Your task to perform on an android device: Open Chrome and go to settings Image 0: 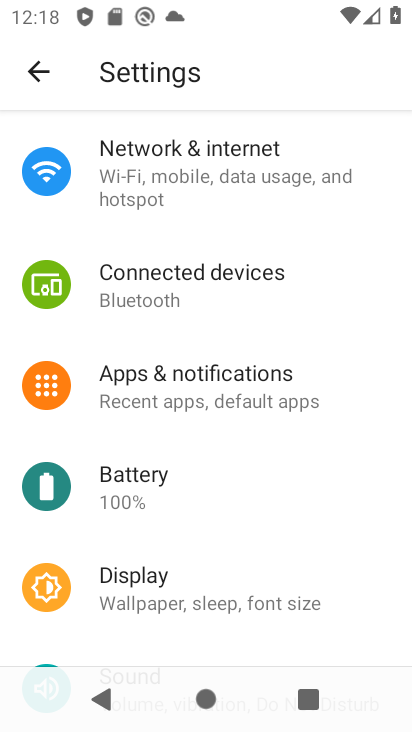
Step 0: press home button
Your task to perform on an android device: Open Chrome and go to settings Image 1: 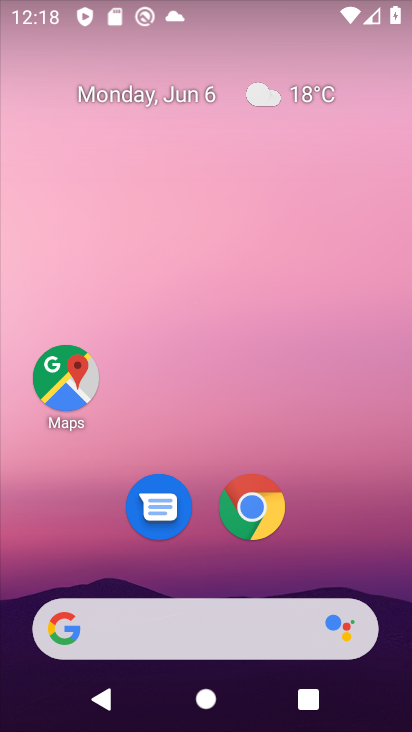
Step 1: click (269, 516)
Your task to perform on an android device: Open Chrome and go to settings Image 2: 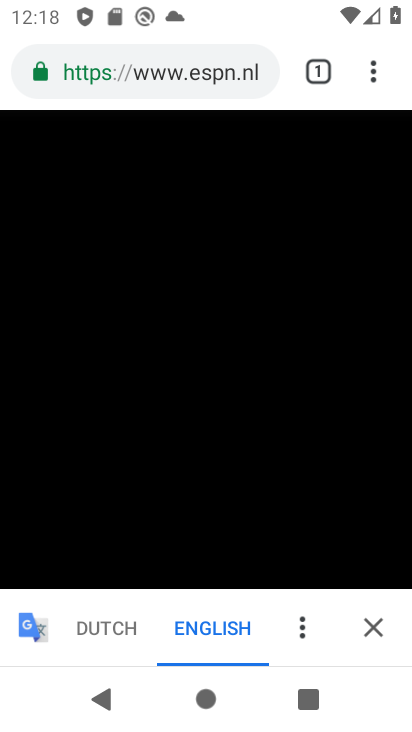
Step 2: click (366, 617)
Your task to perform on an android device: Open Chrome and go to settings Image 3: 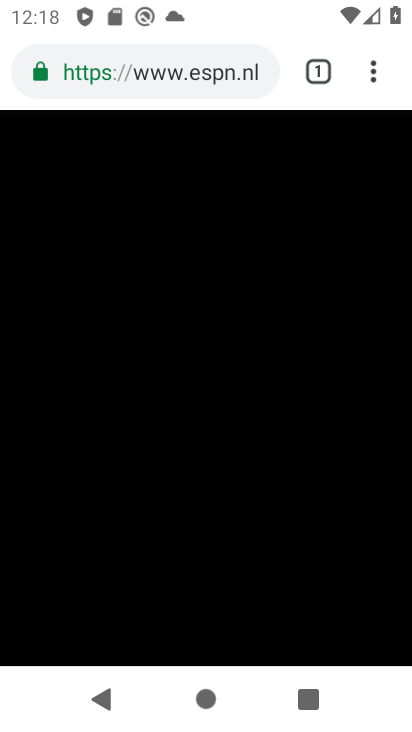
Step 3: click (370, 73)
Your task to perform on an android device: Open Chrome and go to settings Image 4: 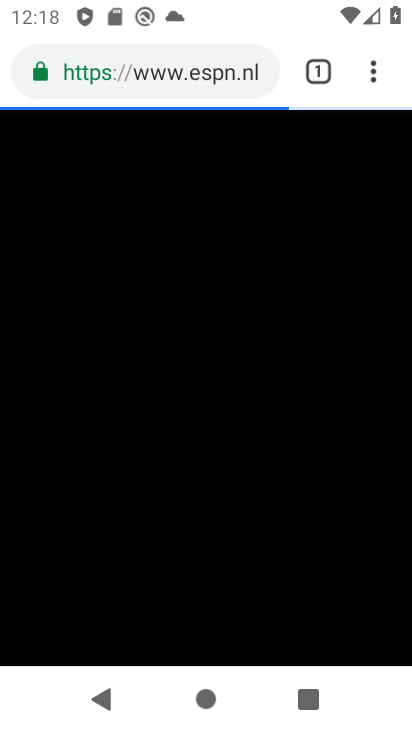
Step 4: click (369, 78)
Your task to perform on an android device: Open Chrome and go to settings Image 5: 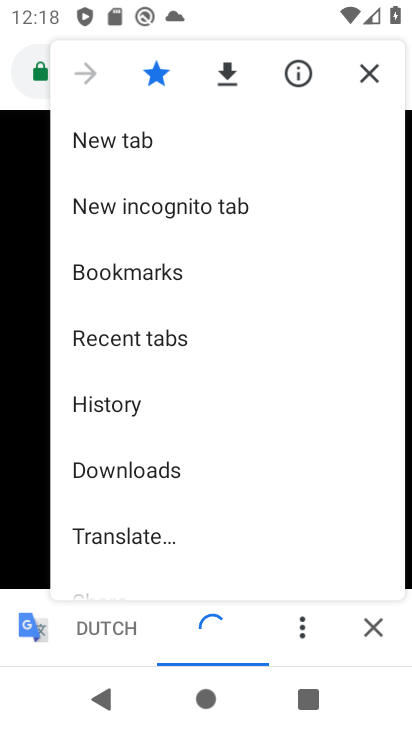
Step 5: drag from (122, 495) to (142, 229)
Your task to perform on an android device: Open Chrome and go to settings Image 6: 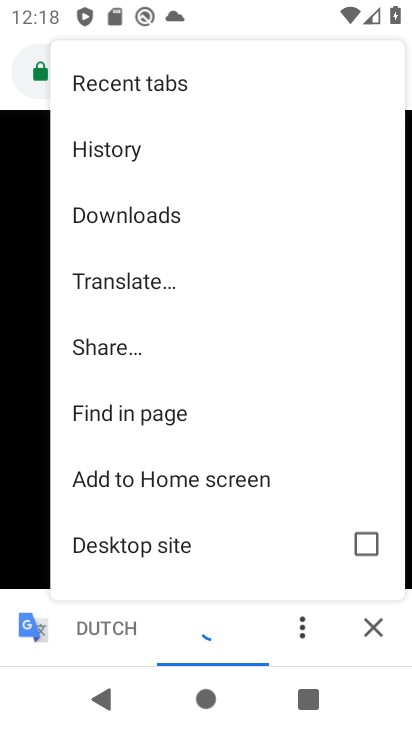
Step 6: drag from (122, 542) to (160, 292)
Your task to perform on an android device: Open Chrome and go to settings Image 7: 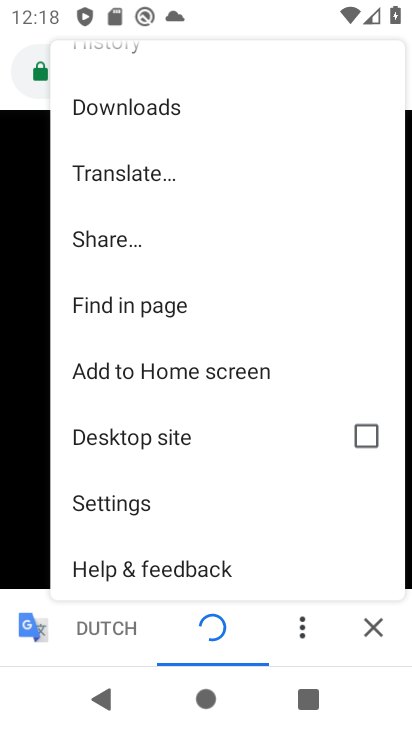
Step 7: click (124, 511)
Your task to perform on an android device: Open Chrome and go to settings Image 8: 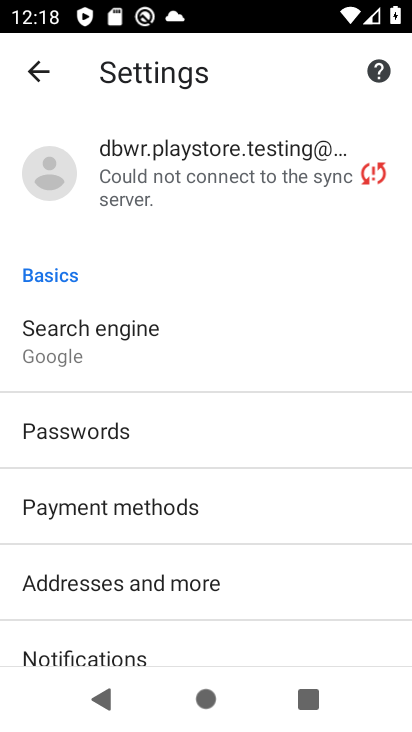
Step 8: task complete